Your task to perform on an android device: Show me recent news Image 0: 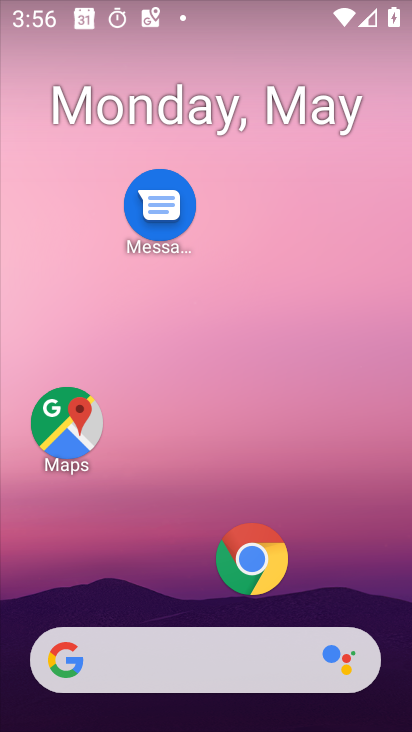
Step 0: click (255, 564)
Your task to perform on an android device: Show me recent news Image 1: 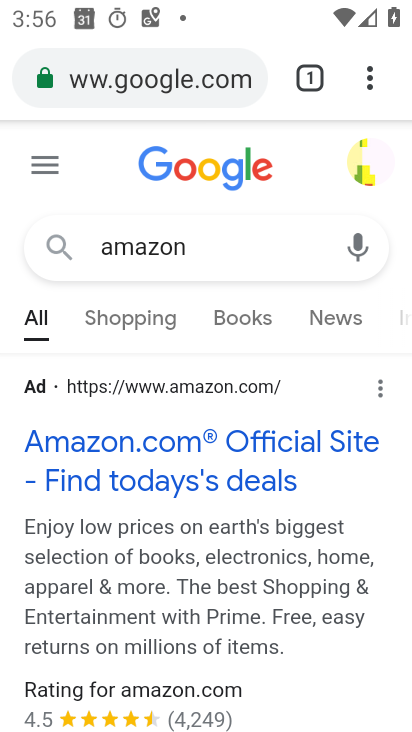
Step 1: click (127, 76)
Your task to perform on an android device: Show me recent news Image 2: 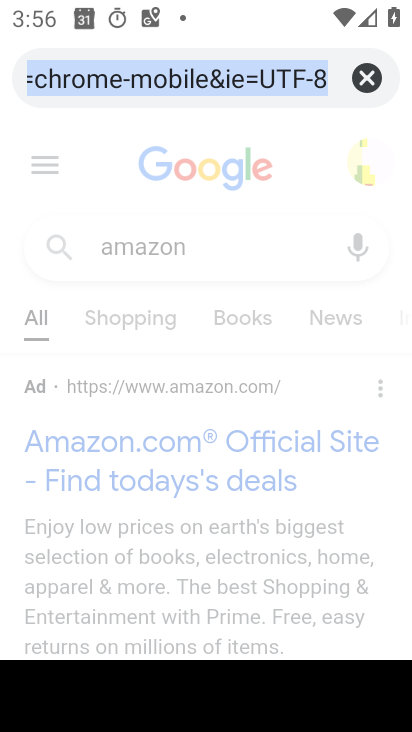
Step 2: type "recent news"
Your task to perform on an android device: Show me recent news Image 3: 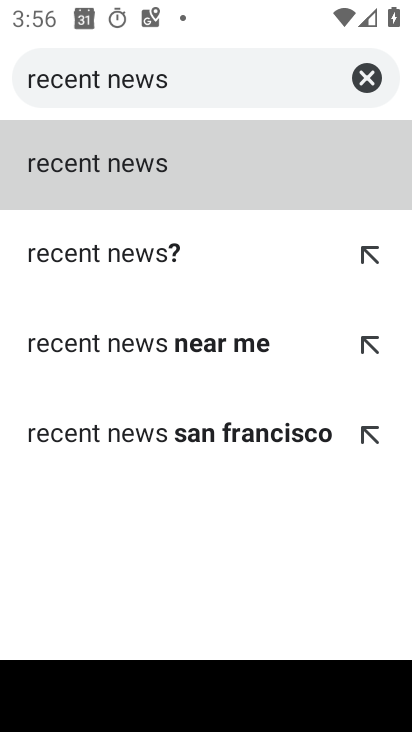
Step 3: click (153, 151)
Your task to perform on an android device: Show me recent news Image 4: 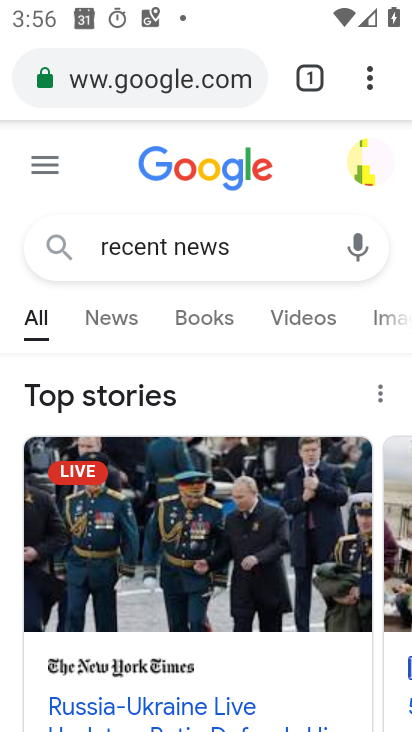
Step 4: task complete